Your task to perform on an android device: toggle location history Image 0: 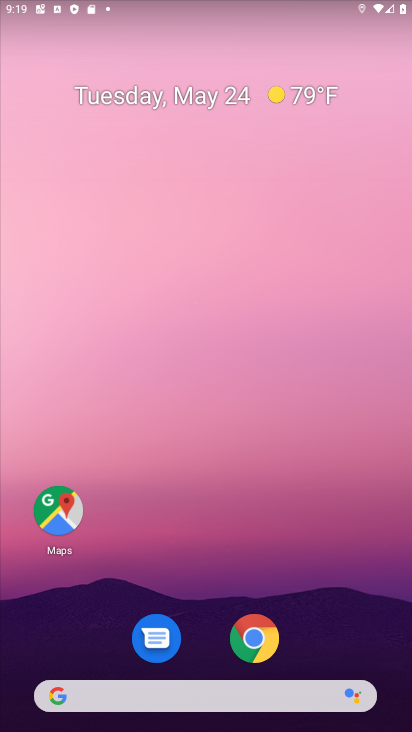
Step 0: drag from (210, 719) to (199, 48)
Your task to perform on an android device: toggle location history Image 1: 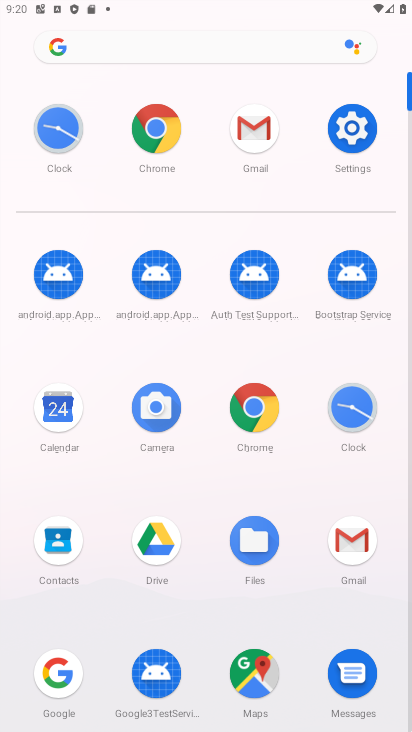
Step 1: click (335, 137)
Your task to perform on an android device: toggle location history Image 2: 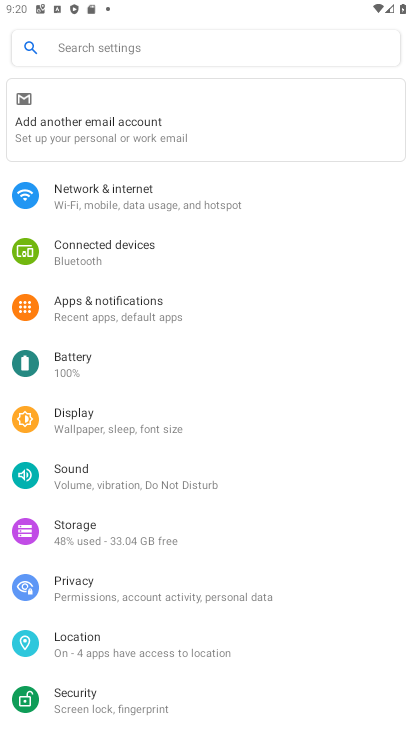
Step 2: click (183, 659)
Your task to perform on an android device: toggle location history Image 3: 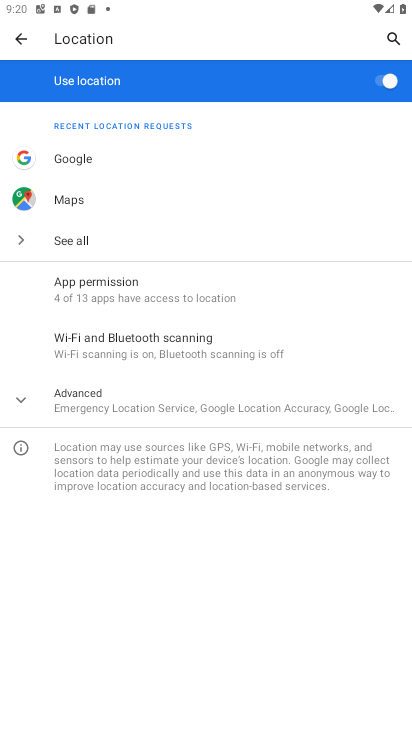
Step 3: click (176, 398)
Your task to perform on an android device: toggle location history Image 4: 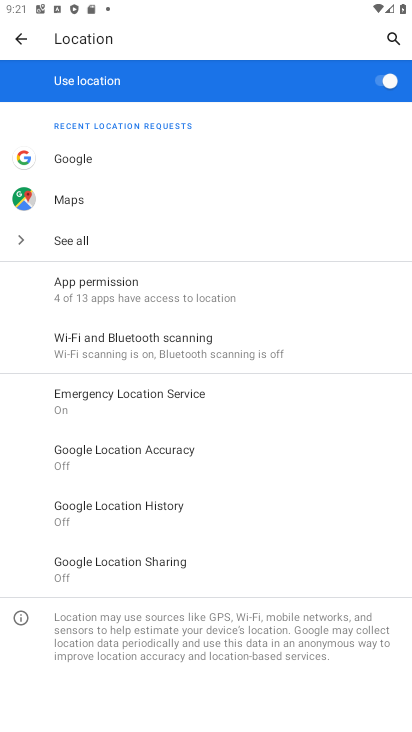
Step 4: click (180, 506)
Your task to perform on an android device: toggle location history Image 5: 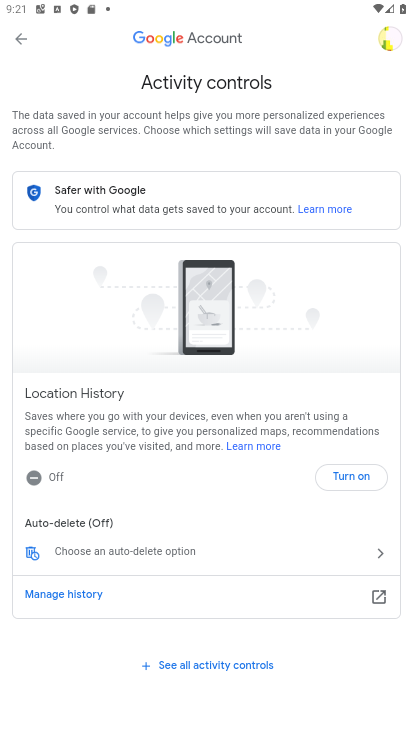
Step 5: click (378, 473)
Your task to perform on an android device: toggle location history Image 6: 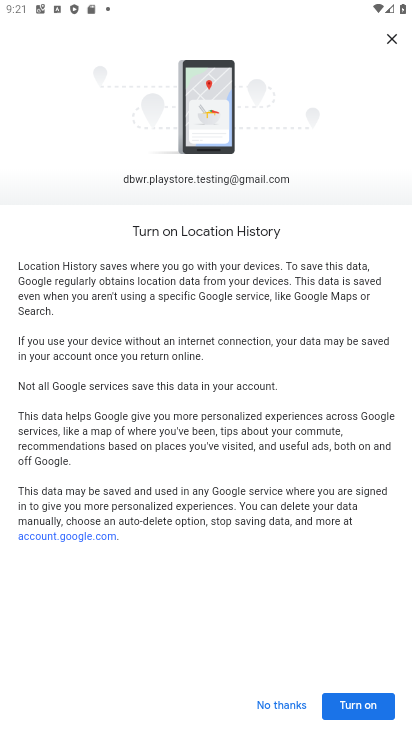
Step 6: click (355, 719)
Your task to perform on an android device: toggle location history Image 7: 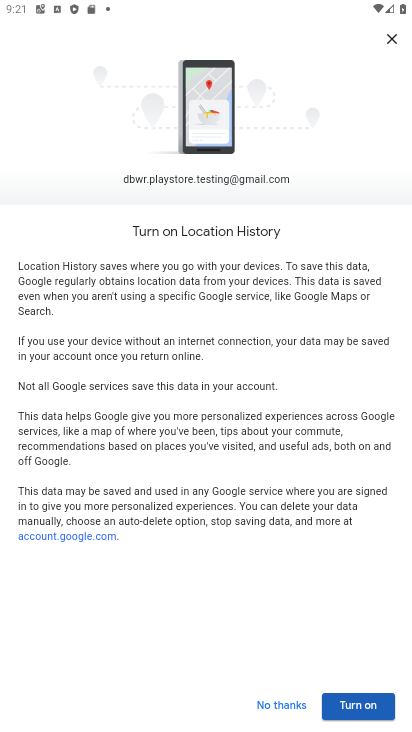
Step 7: click (368, 714)
Your task to perform on an android device: toggle location history Image 8: 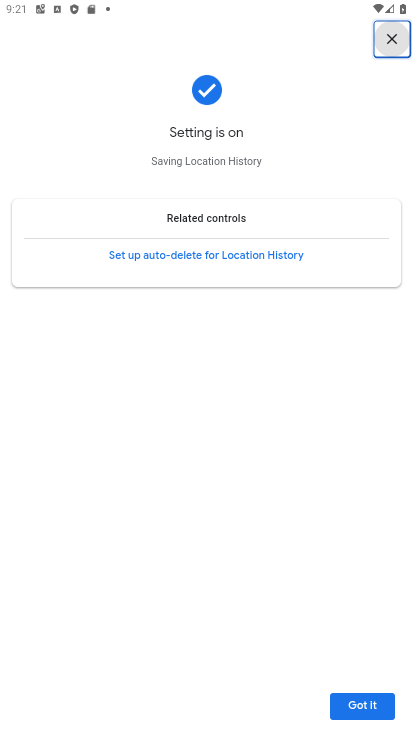
Step 8: click (336, 703)
Your task to perform on an android device: toggle location history Image 9: 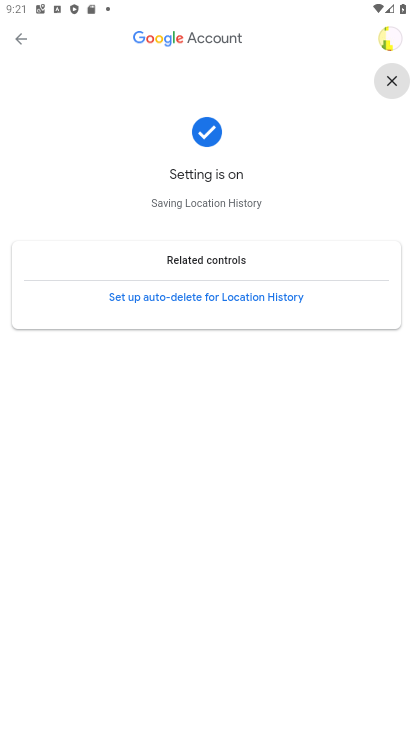
Step 9: task complete